Your task to perform on an android device: turn on priority inbox in the gmail app Image 0: 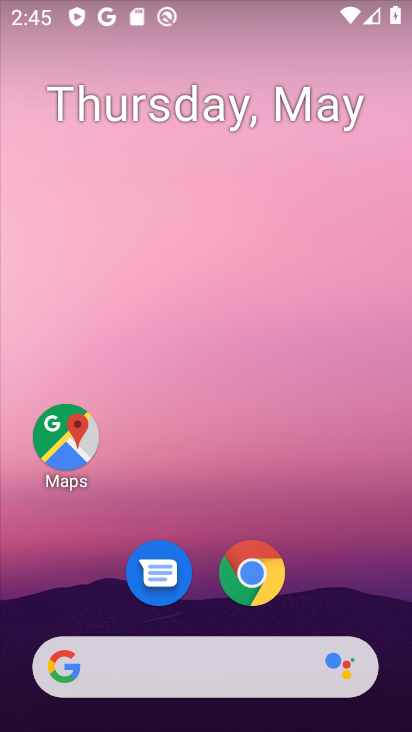
Step 0: drag from (56, 614) to (167, 129)
Your task to perform on an android device: turn on priority inbox in the gmail app Image 1: 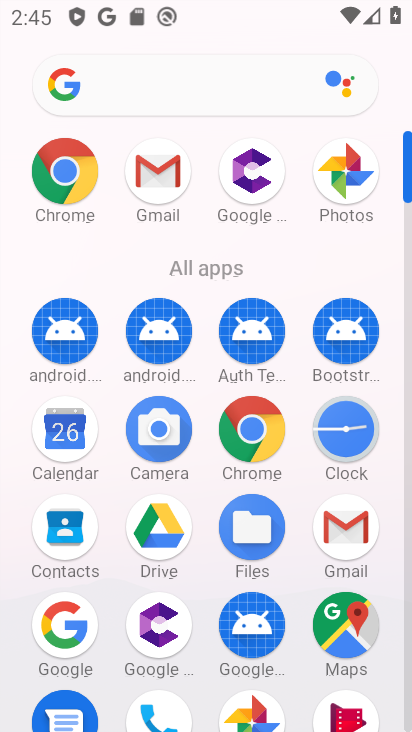
Step 1: click (340, 525)
Your task to perform on an android device: turn on priority inbox in the gmail app Image 2: 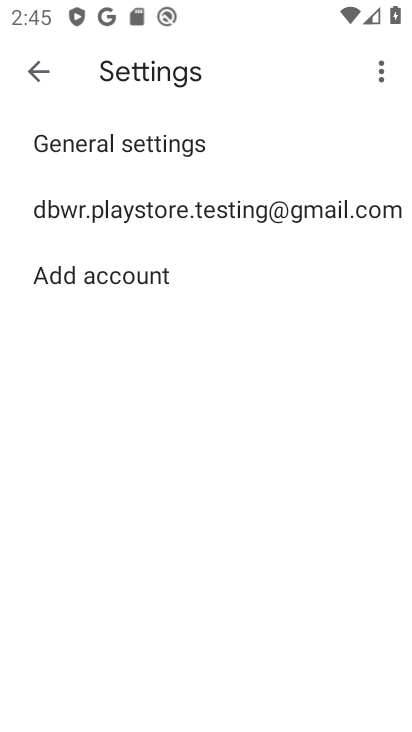
Step 2: click (227, 213)
Your task to perform on an android device: turn on priority inbox in the gmail app Image 3: 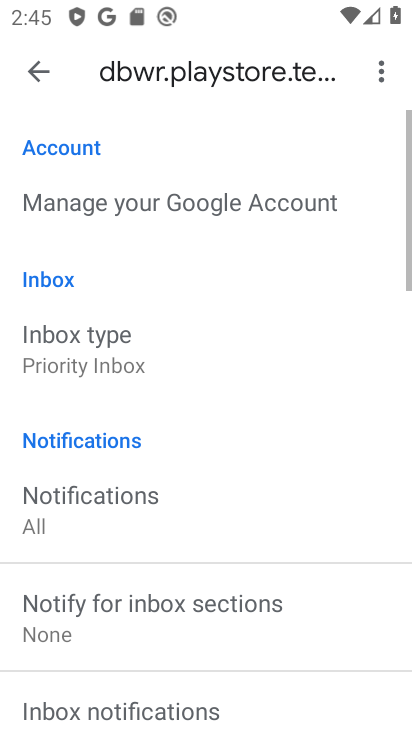
Step 3: task complete